Your task to perform on an android device: show emergency info Image 0: 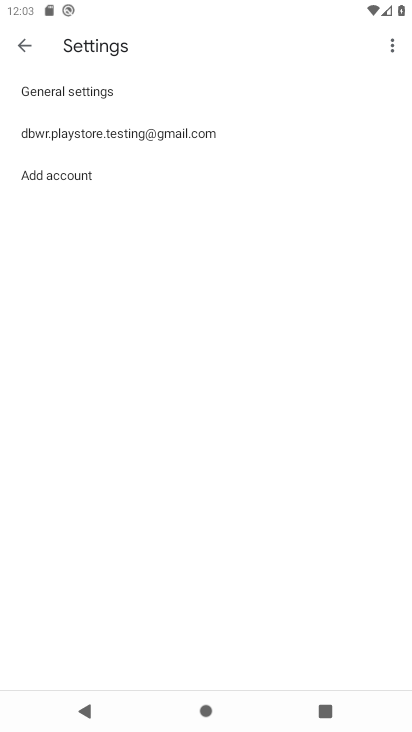
Step 0: press home button
Your task to perform on an android device: show emergency info Image 1: 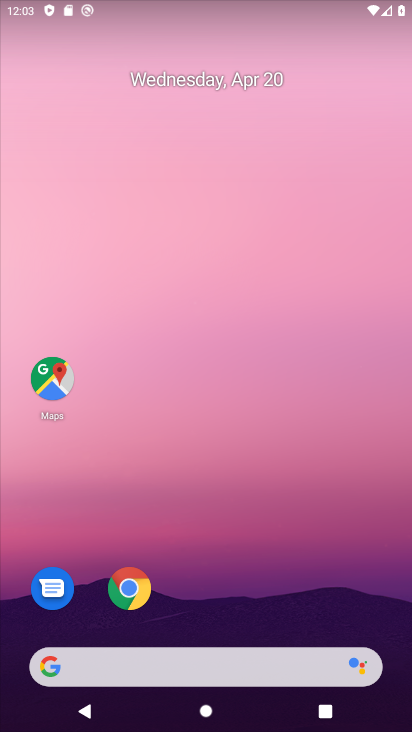
Step 1: drag from (202, 626) to (296, 20)
Your task to perform on an android device: show emergency info Image 2: 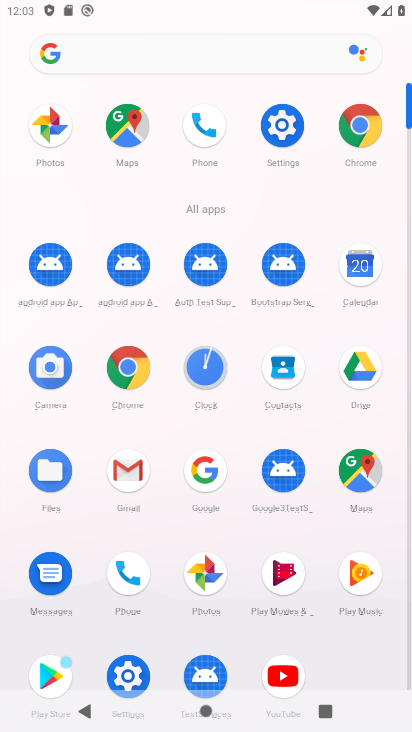
Step 2: click (292, 138)
Your task to perform on an android device: show emergency info Image 3: 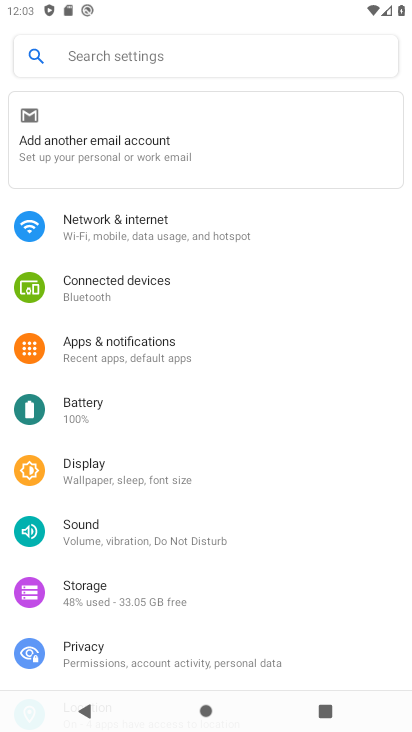
Step 3: drag from (217, 603) to (149, 73)
Your task to perform on an android device: show emergency info Image 4: 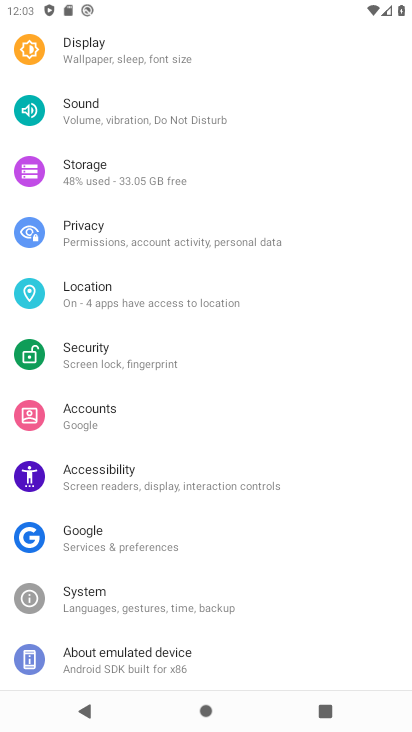
Step 4: click (137, 650)
Your task to perform on an android device: show emergency info Image 5: 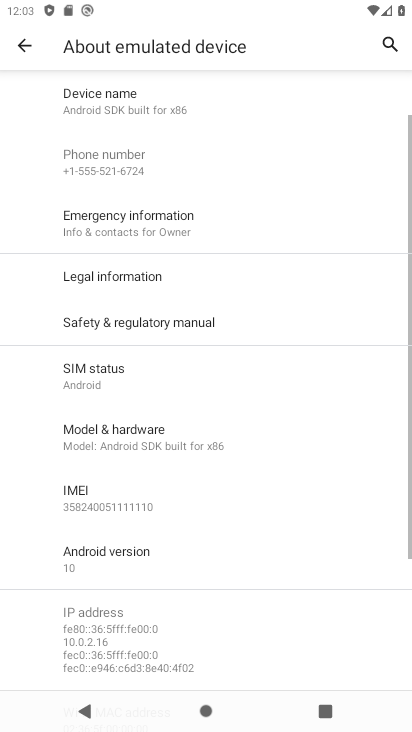
Step 5: click (117, 233)
Your task to perform on an android device: show emergency info Image 6: 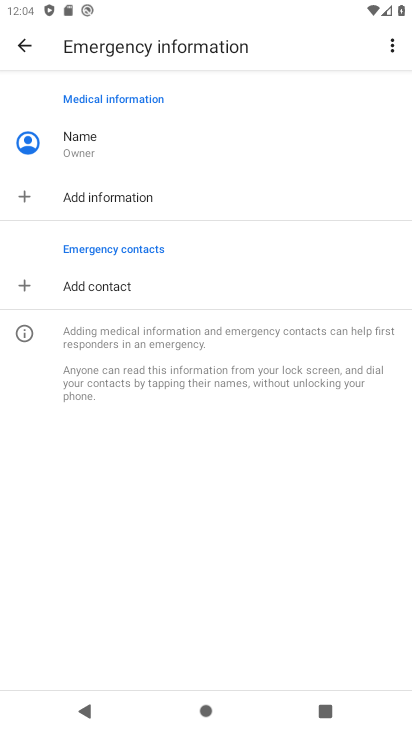
Step 6: task complete